Your task to perform on an android device: check battery use Image 0: 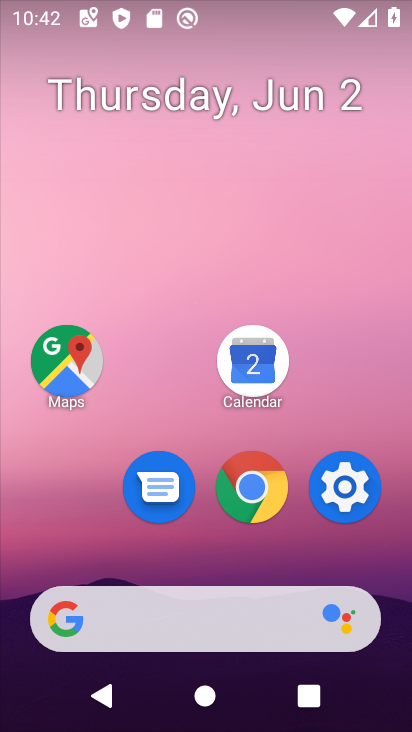
Step 0: press home button
Your task to perform on an android device: check battery use Image 1: 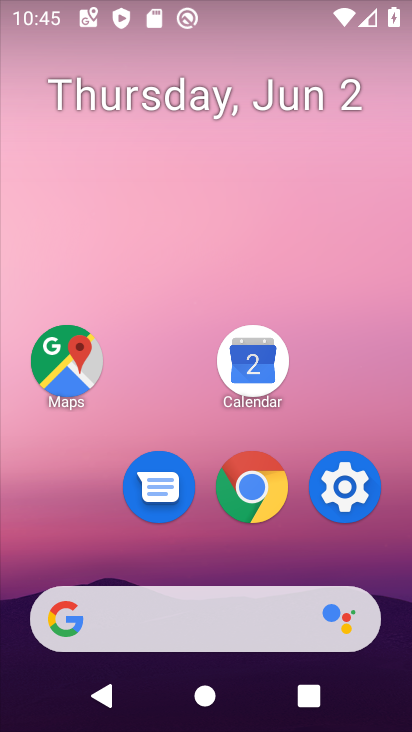
Step 1: click (336, 496)
Your task to perform on an android device: check battery use Image 2: 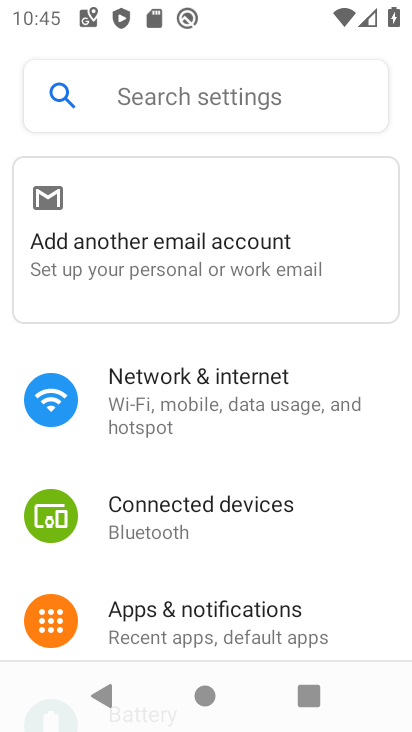
Step 2: drag from (173, 544) to (198, 306)
Your task to perform on an android device: check battery use Image 3: 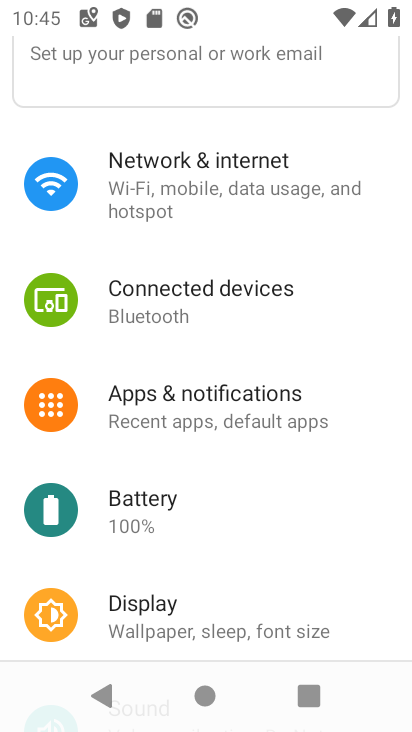
Step 3: click (164, 503)
Your task to perform on an android device: check battery use Image 4: 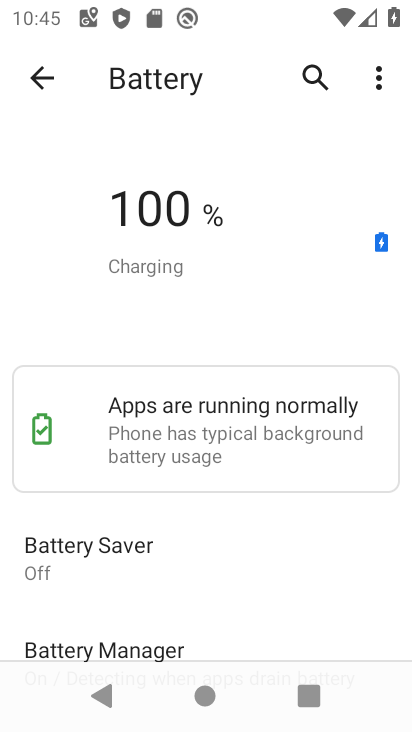
Step 4: task complete